Your task to perform on an android device: Turn on the flashlight Image 0: 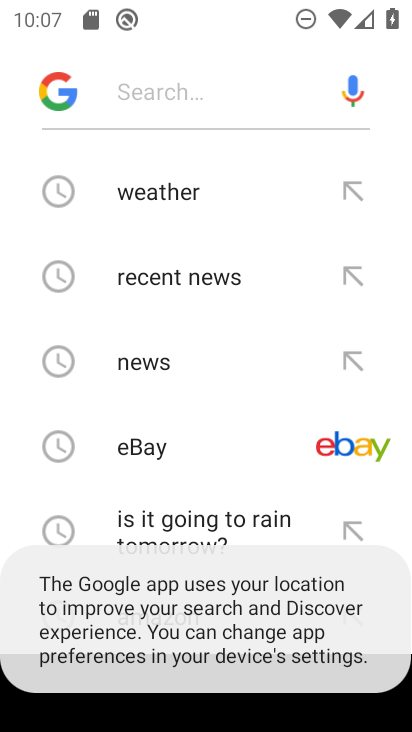
Step 0: press back button
Your task to perform on an android device: Turn on the flashlight Image 1: 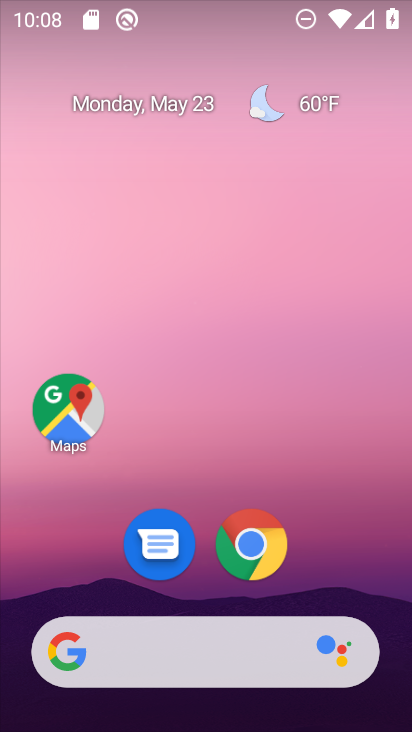
Step 1: drag from (332, 579) to (275, 230)
Your task to perform on an android device: Turn on the flashlight Image 2: 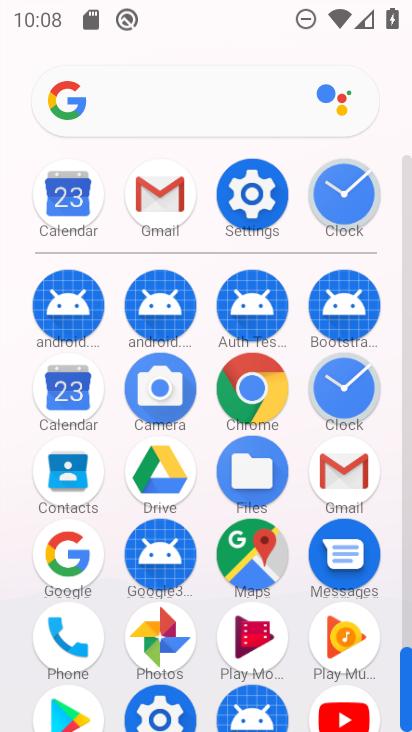
Step 2: click (257, 202)
Your task to perform on an android device: Turn on the flashlight Image 3: 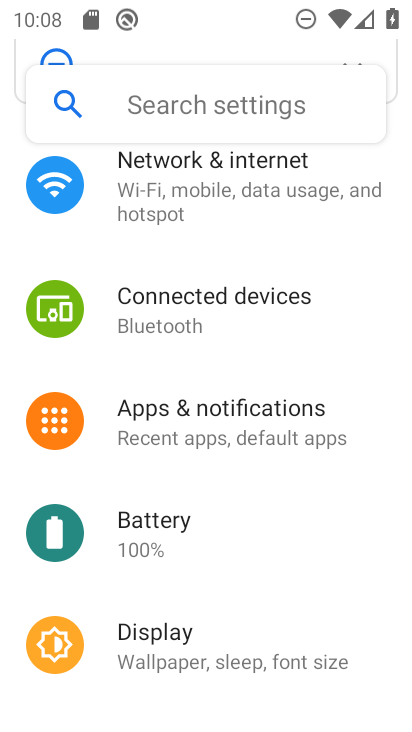
Step 3: click (260, 121)
Your task to perform on an android device: Turn on the flashlight Image 4: 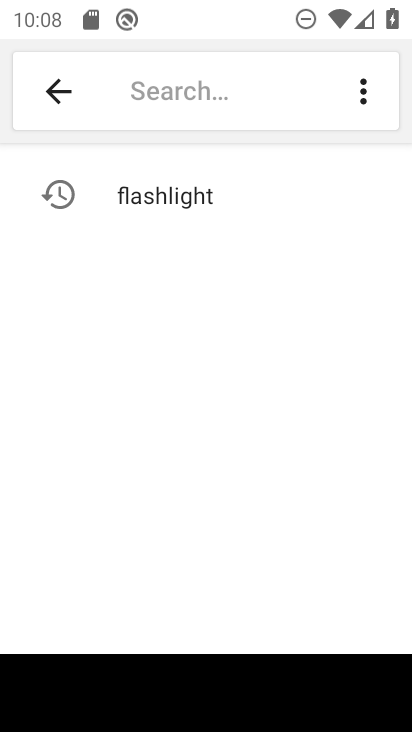
Step 4: click (168, 192)
Your task to perform on an android device: Turn on the flashlight Image 5: 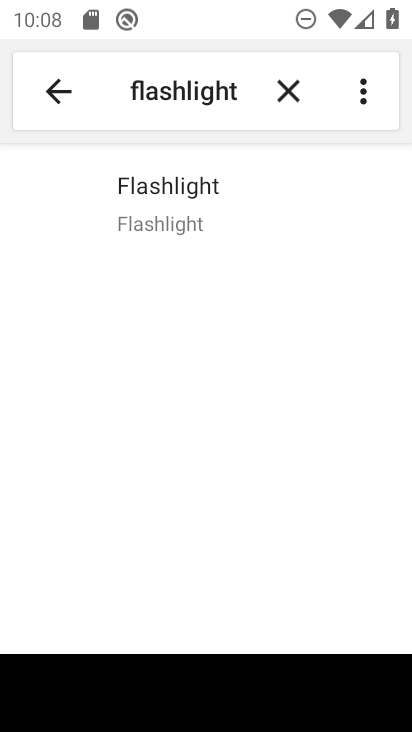
Step 5: click (168, 192)
Your task to perform on an android device: Turn on the flashlight Image 6: 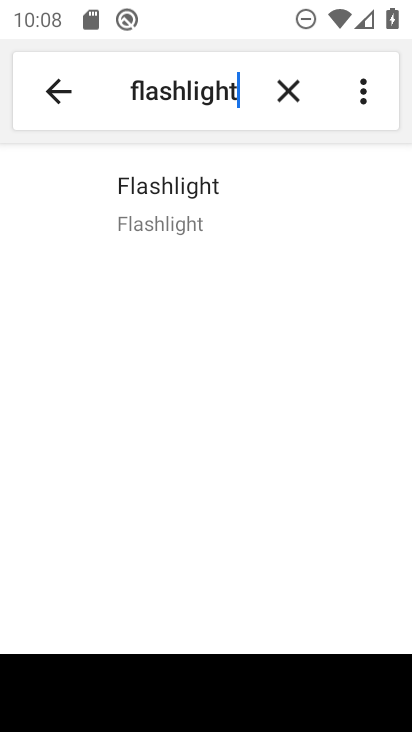
Step 6: click (168, 192)
Your task to perform on an android device: Turn on the flashlight Image 7: 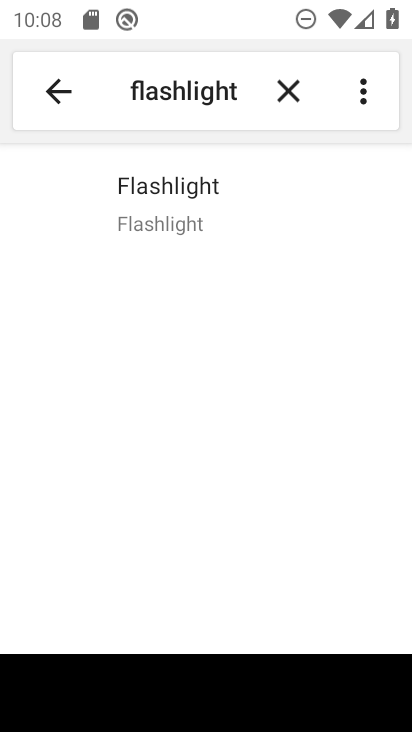
Step 7: click (171, 218)
Your task to perform on an android device: Turn on the flashlight Image 8: 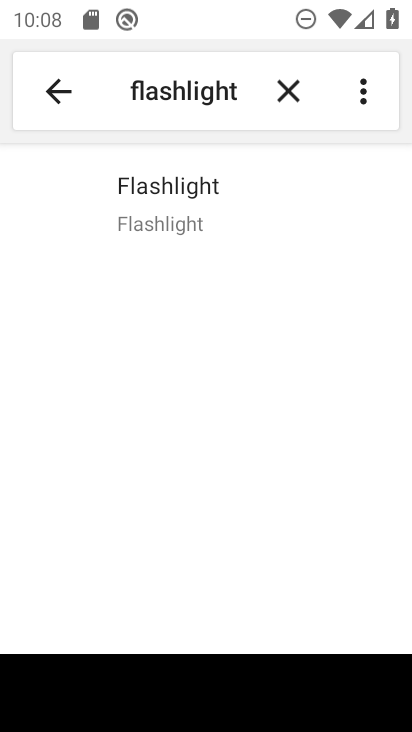
Step 8: task complete